Your task to perform on an android device: What's on my calendar tomorrow? Image 0: 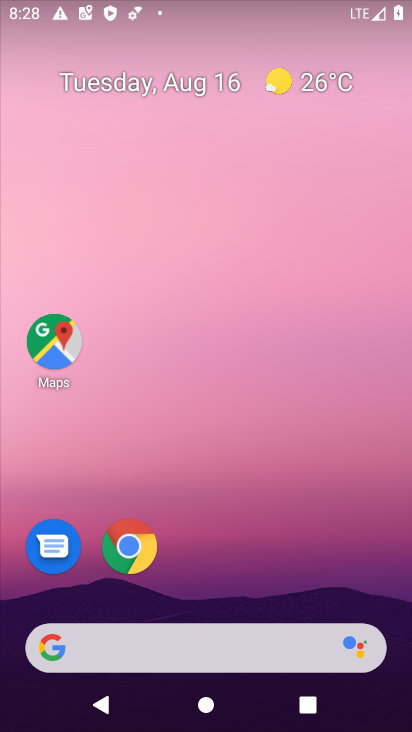
Step 0: drag from (236, 543) to (283, 75)
Your task to perform on an android device: What's on my calendar tomorrow? Image 1: 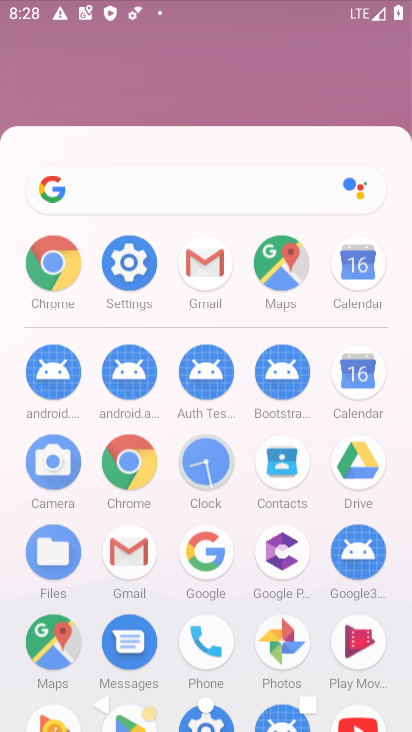
Step 1: click (276, 23)
Your task to perform on an android device: What's on my calendar tomorrow? Image 2: 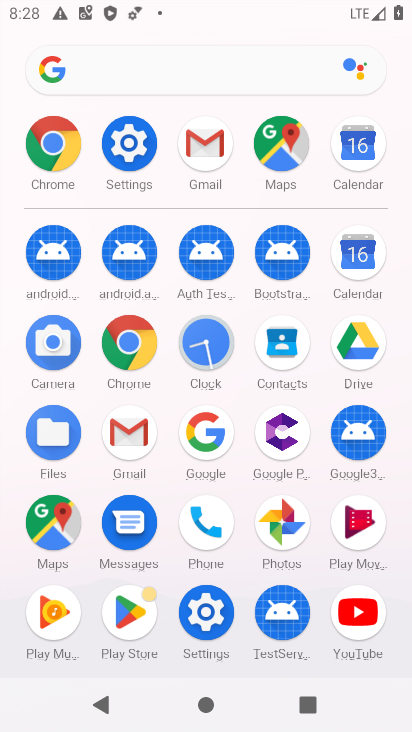
Step 2: click (360, 147)
Your task to perform on an android device: What's on my calendar tomorrow? Image 3: 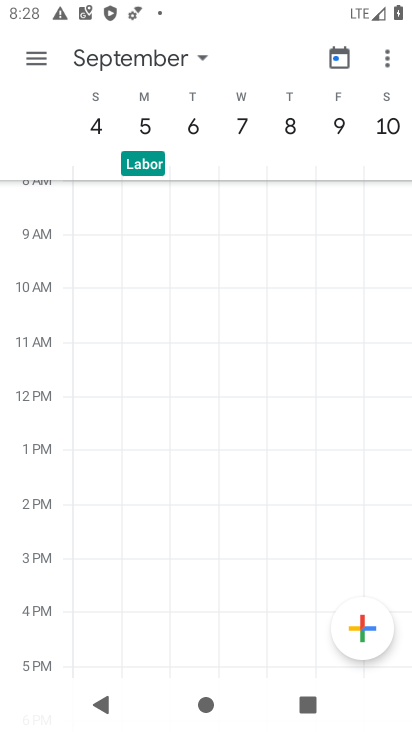
Step 3: click (31, 55)
Your task to perform on an android device: What's on my calendar tomorrow? Image 4: 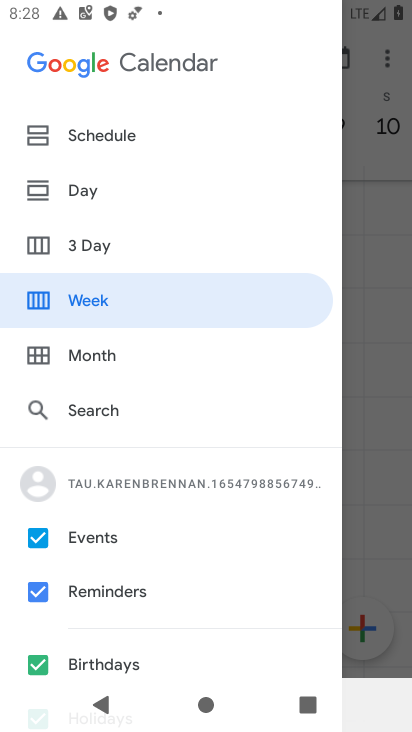
Step 4: click (35, 351)
Your task to perform on an android device: What's on my calendar tomorrow? Image 5: 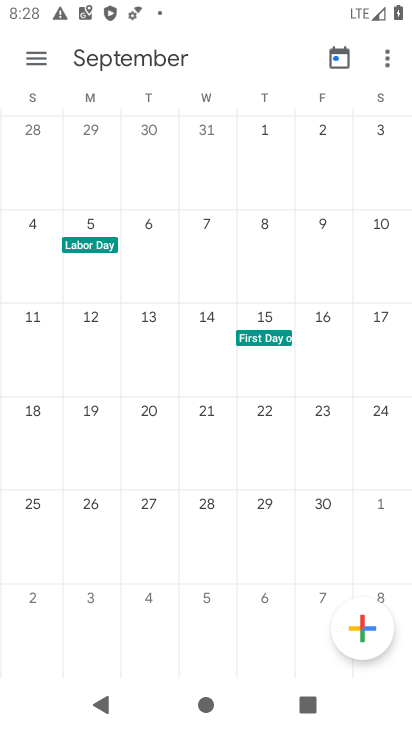
Step 5: drag from (81, 370) to (411, 430)
Your task to perform on an android device: What's on my calendar tomorrow? Image 6: 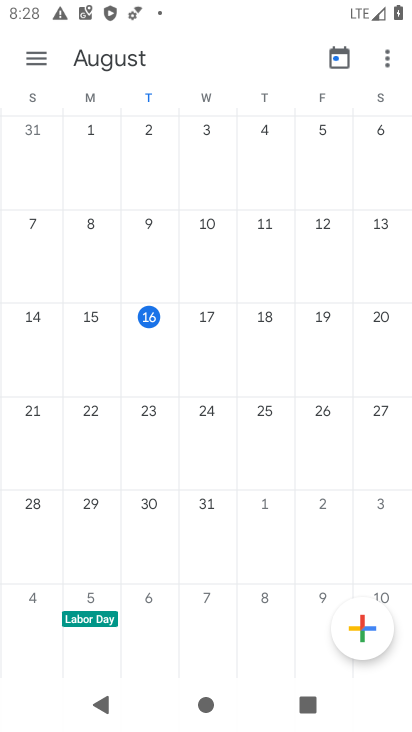
Step 6: click (209, 315)
Your task to perform on an android device: What's on my calendar tomorrow? Image 7: 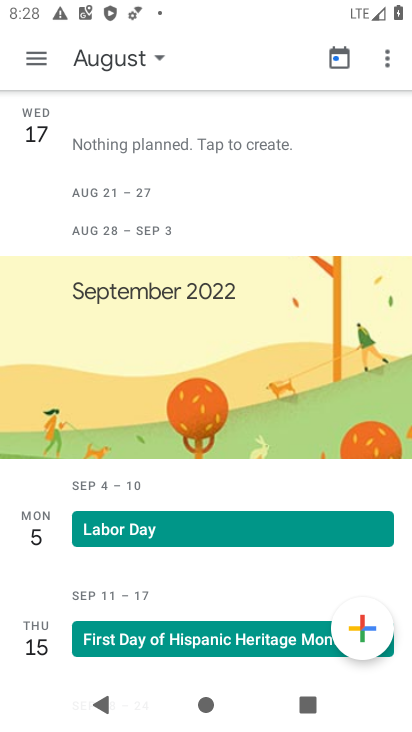
Step 7: task complete